Your task to perform on an android device: clear all cookies in the chrome app Image 0: 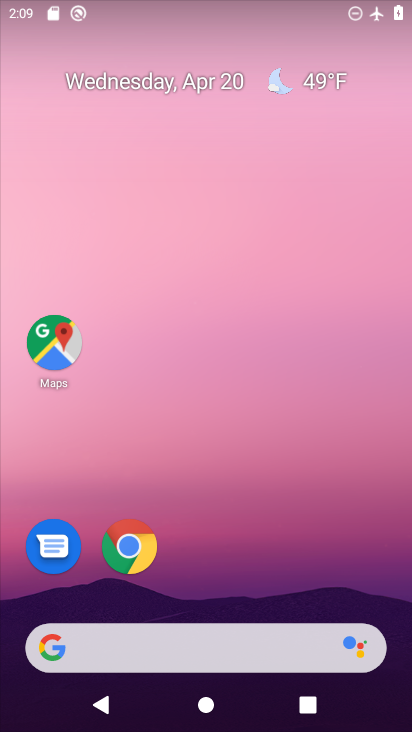
Step 0: click (129, 550)
Your task to perform on an android device: clear all cookies in the chrome app Image 1: 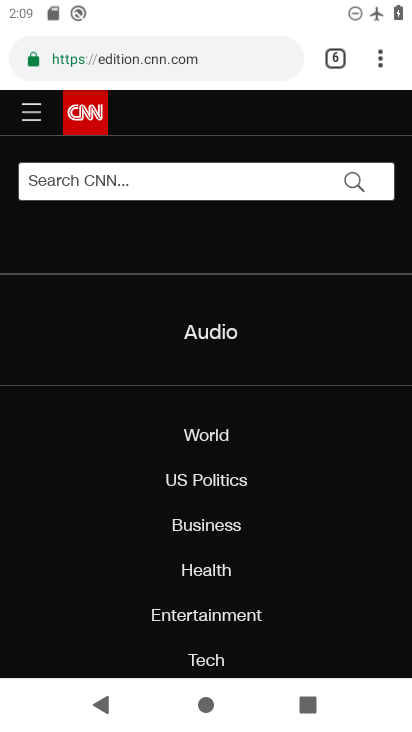
Step 1: click (379, 46)
Your task to perform on an android device: clear all cookies in the chrome app Image 2: 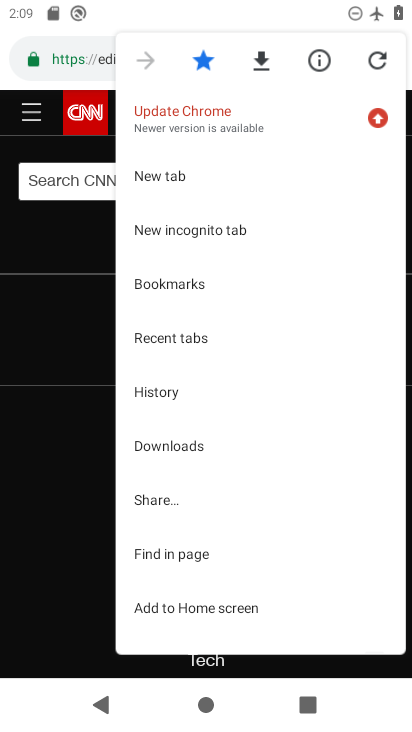
Step 2: click (165, 389)
Your task to perform on an android device: clear all cookies in the chrome app Image 3: 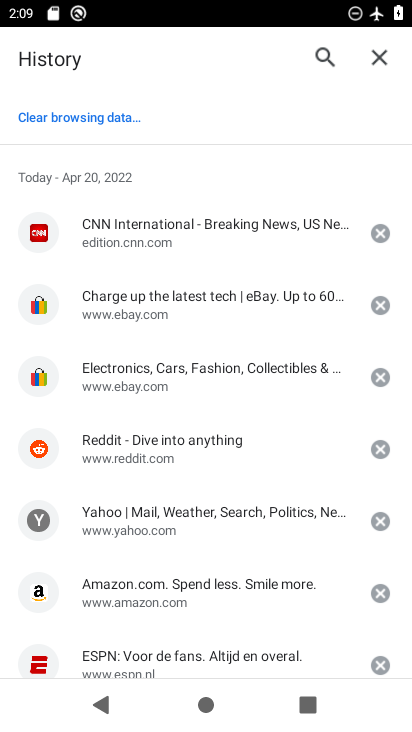
Step 3: click (44, 114)
Your task to perform on an android device: clear all cookies in the chrome app Image 4: 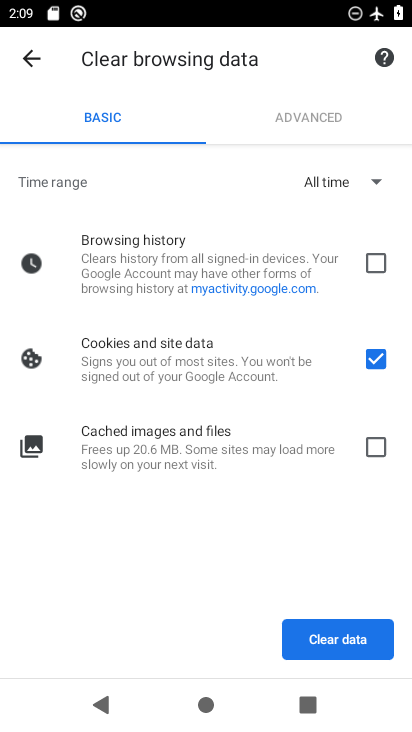
Step 4: click (341, 642)
Your task to perform on an android device: clear all cookies in the chrome app Image 5: 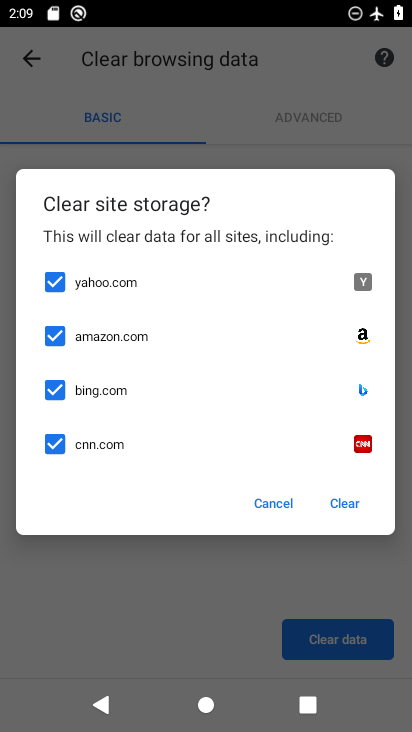
Step 5: click (359, 505)
Your task to perform on an android device: clear all cookies in the chrome app Image 6: 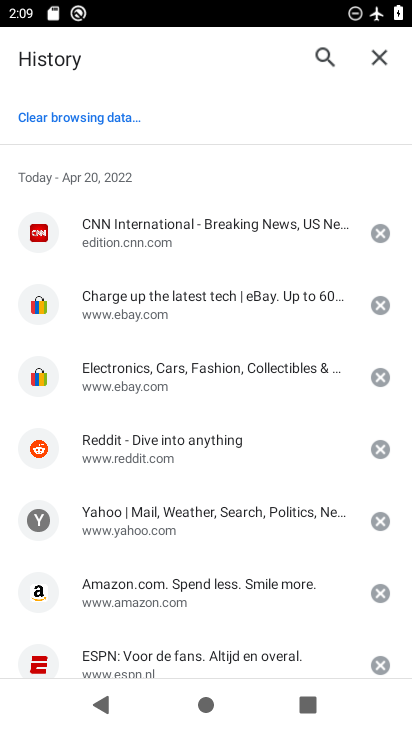
Step 6: task complete